Your task to perform on an android device: refresh tabs in the chrome app Image 0: 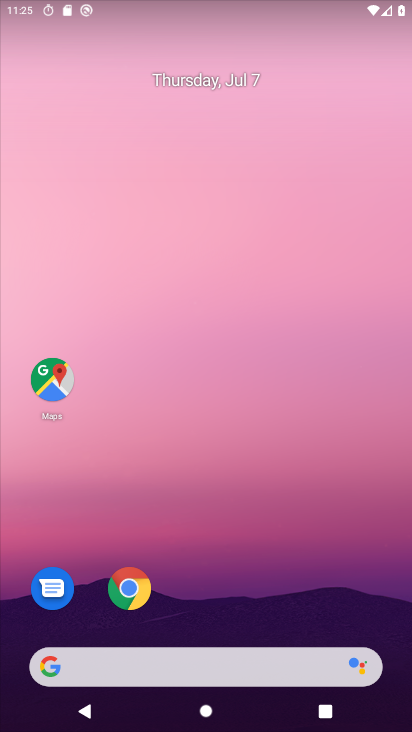
Step 0: click (140, 590)
Your task to perform on an android device: refresh tabs in the chrome app Image 1: 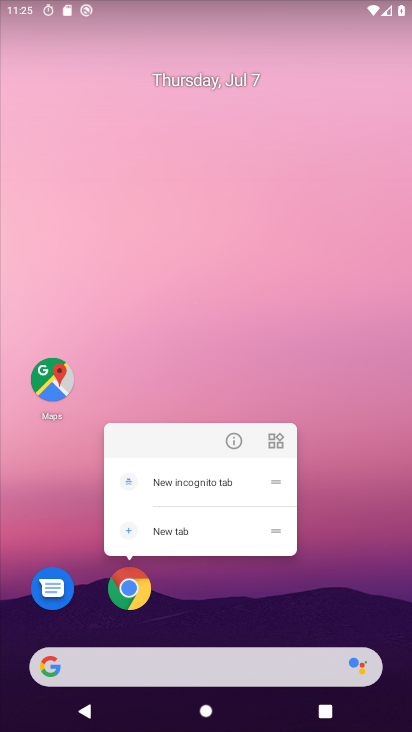
Step 1: click (128, 588)
Your task to perform on an android device: refresh tabs in the chrome app Image 2: 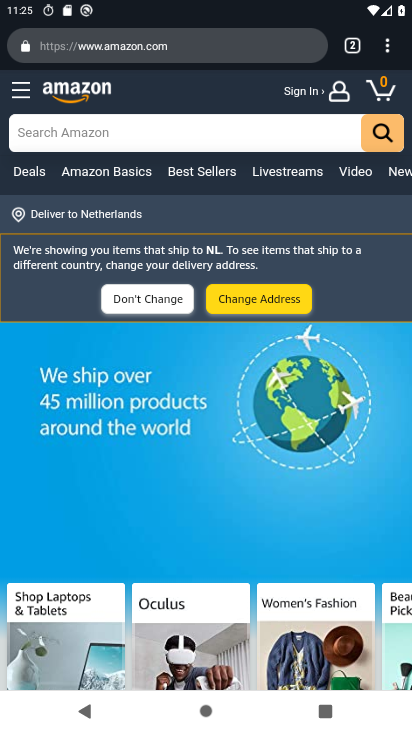
Step 2: click (384, 62)
Your task to perform on an android device: refresh tabs in the chrome app Image 3: 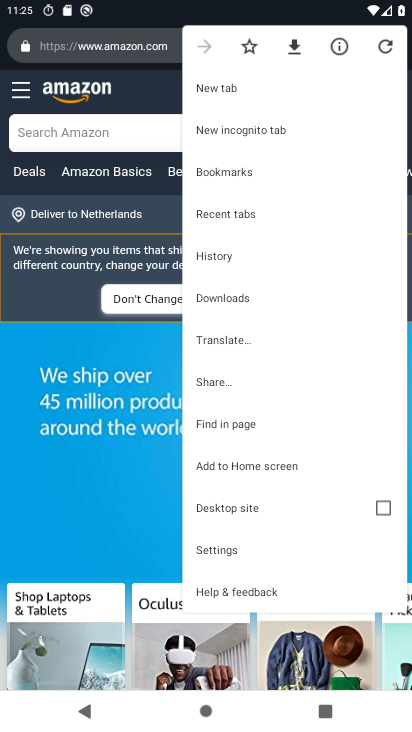
Step 3: click (382, 44)
Your task to perform on an android device: refresh tabs in the chrome app Image 4: 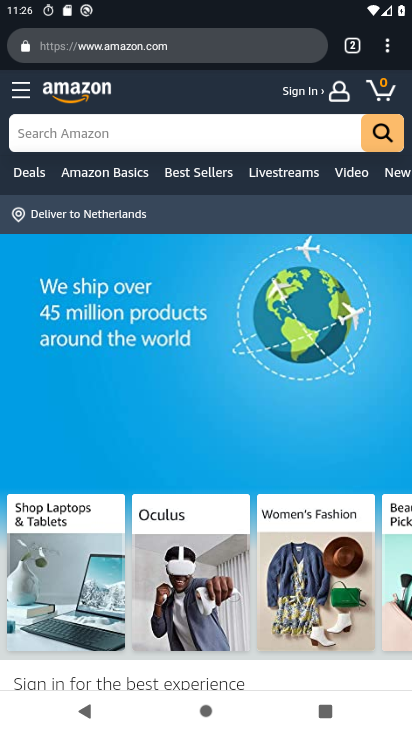
Step 4: task complete